Your task to perform on an android device: delete a single message in the gmail app Image 0: 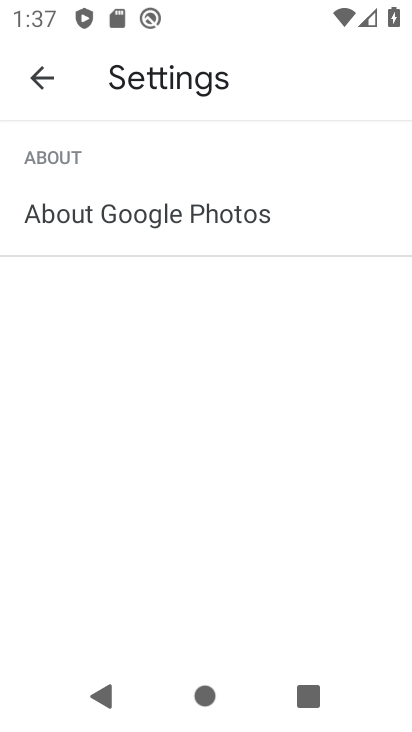
Step 0: press back button
Your task to perform on an android device: delete a single message in the gmail app Image 1: 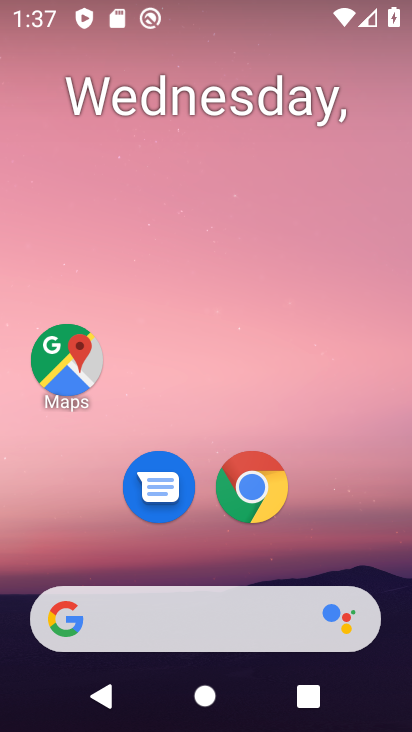
Step 1: drag from (224, 549) to (285, 2)
Your task to perform on an android device: delete a single message in the gmail app Image 2: 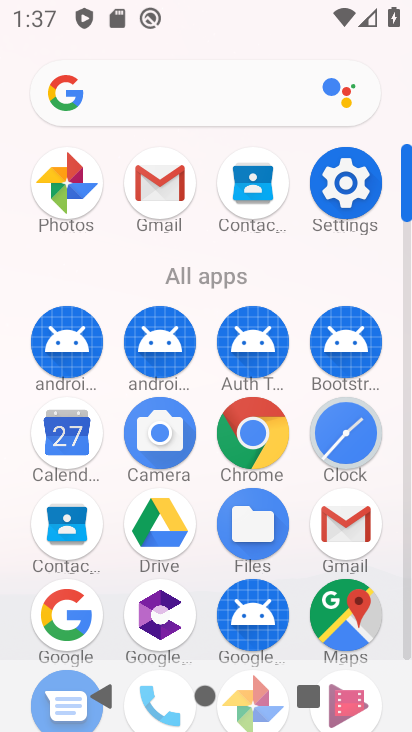
Step 2: click (137, 166)
Your task to perform on an android device: delete a single message in the gmail app Image 3: 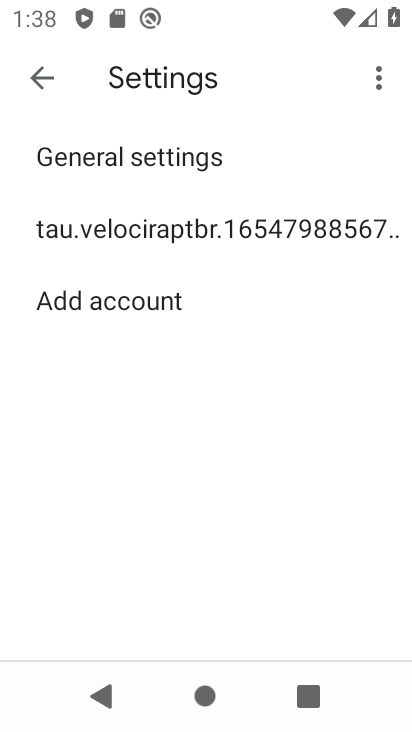
Step 3: click (39, 78)
Your task to perform on an android device: delete a single message in the gmail app Image 4: 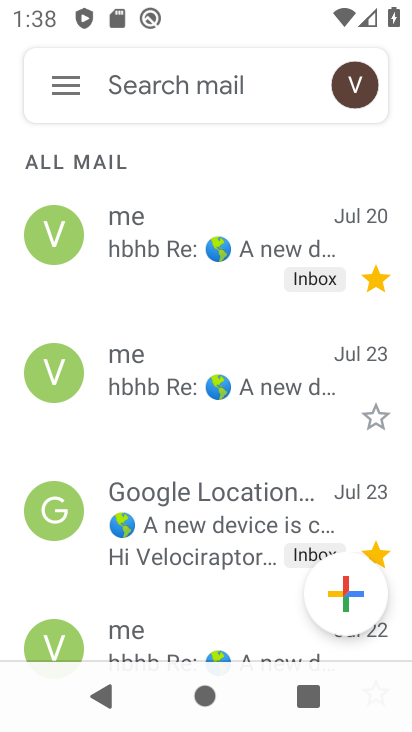
Step 4: click (207, 368)
Your task to perform on an android device: delete a single message in the gmail app Image 5: 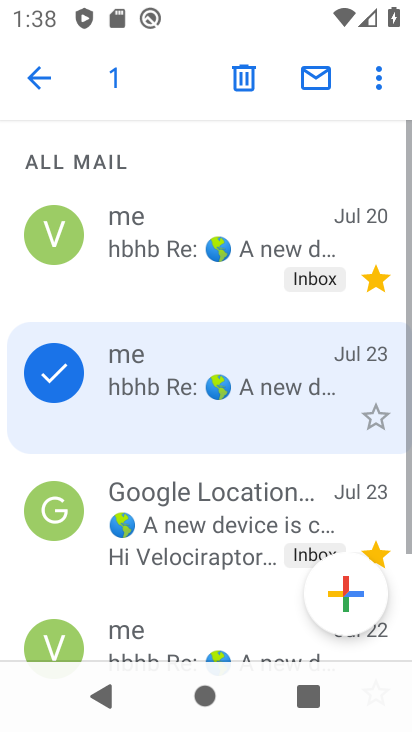
Step 5: click (244, 64)
Your task to perform on an android device: delete a single message in the gmail app Image 6: 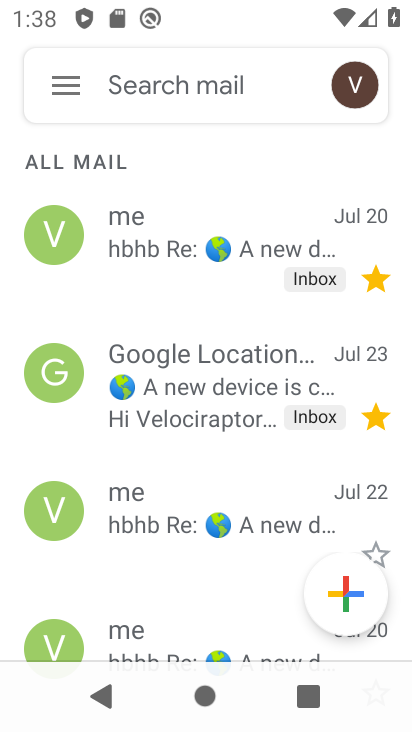
Step 6: task complete